Your task to perform on an android device: read, delete, or share a saved page in the chrome app Image 0: 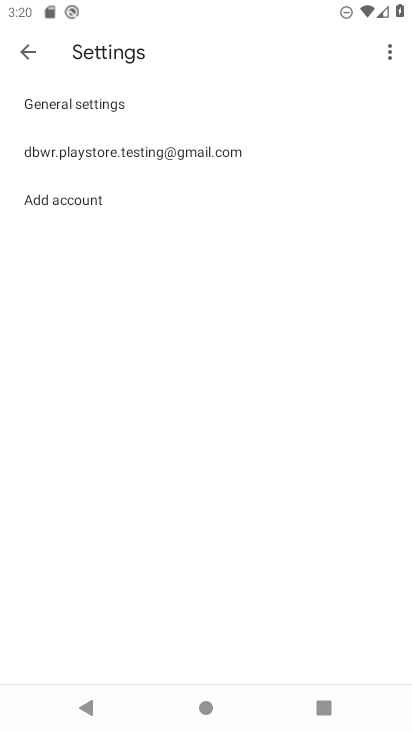
Step 0: press home button
Your task to perform on an android device: read, delete, or share a saved page in the chrome app Image 1: 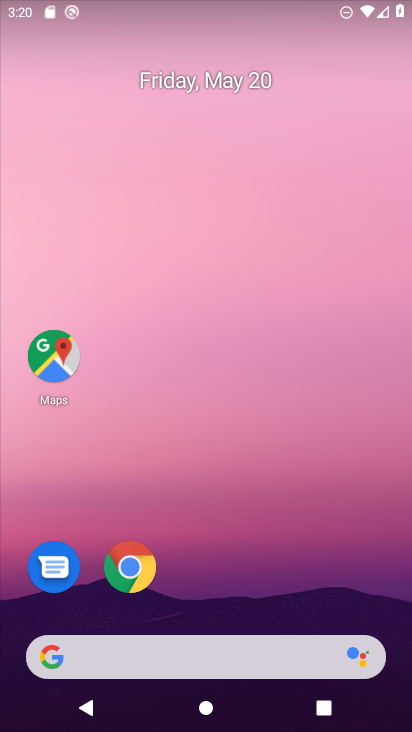
Step 1: click (131, 569)
Your task to perform on an android device: read, delete, or share a saved page in the chrome app Image 2: 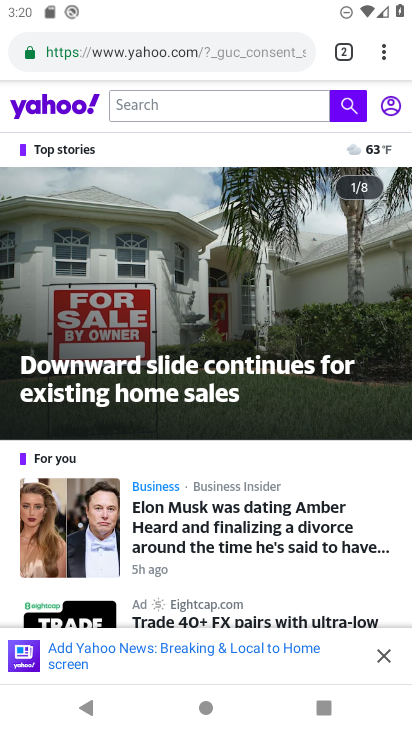
Step 2: click (385, 59)
Your task to perform on an android device: read, delete, or share a saved page in the chrome app Image 3: 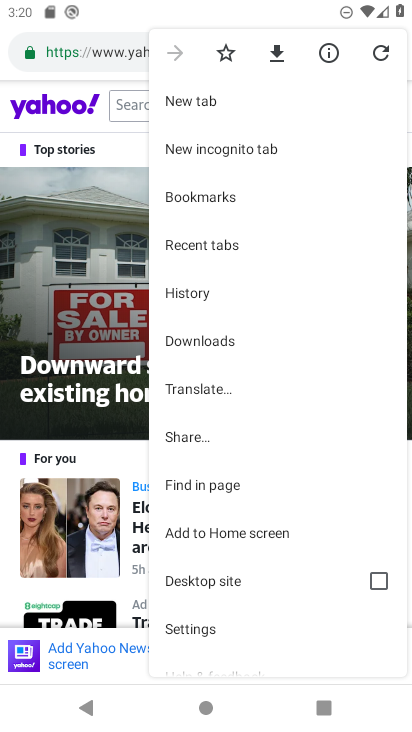
Step 3: click (200, 341)
Your task to perform on an android device: read, delete, or share a saved page in the chrome app Image 4: 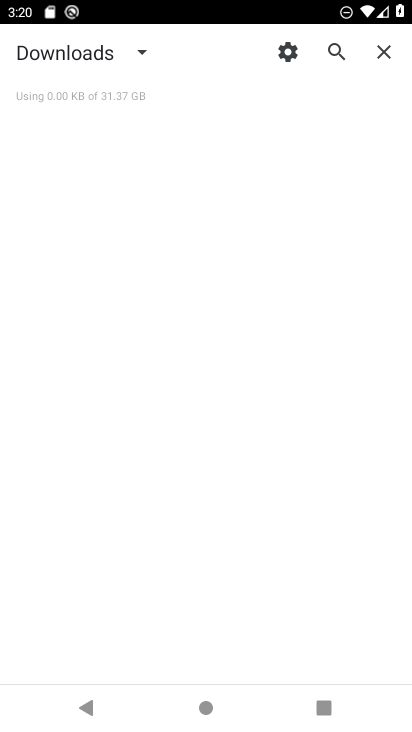
Step 4: click (140, 51)
Your task to perform on an android device: read, delete, or share a saved page in the chrome app Image 5: 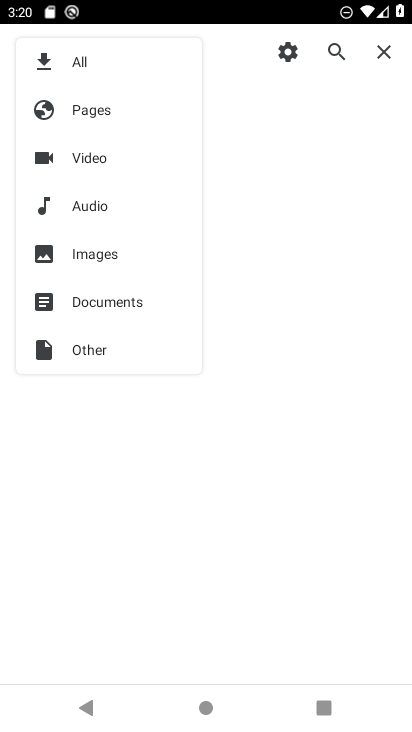
Step 5: click (93, 108)
Your task to perform on an android device: read, delete, or share a saved page in the chrome app Image 6: 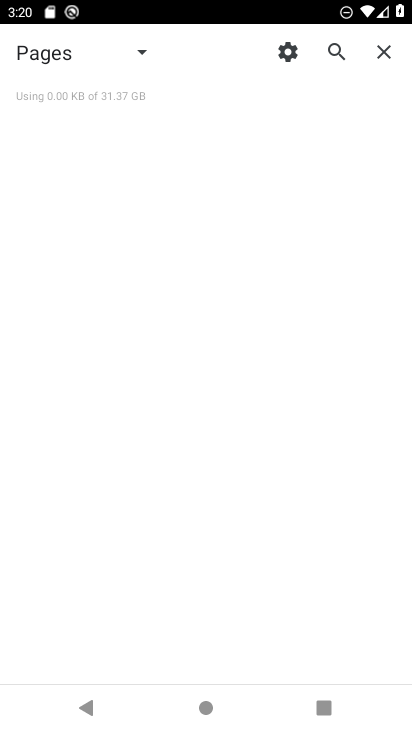
Step 6: task complete